Your task to perform on an android device: toggle wifi Image 0: 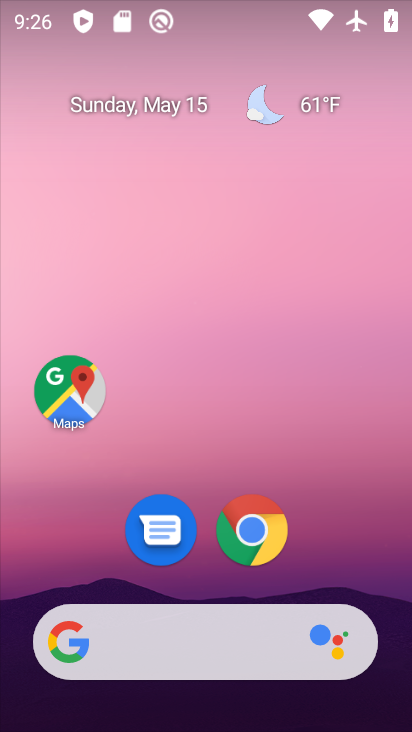
Step 0: drag from (219, 694) to (224, 31)
Your task to perform on an android device: toggle wifi Image 1: 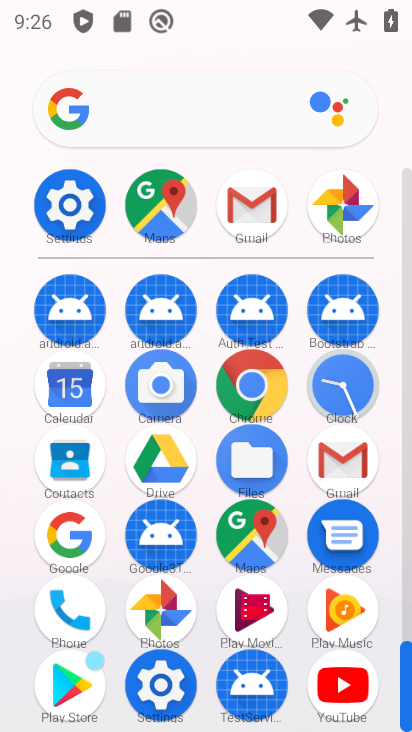
Step 1: click (79, 196)
Your task to perform on an android device: toggle wifi Image 2: 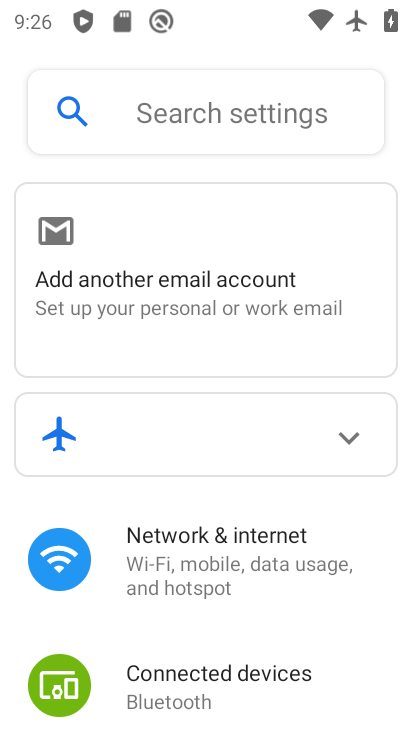
Step 2: click (172, 581)
Your task to perform on an android device: toggle wifi Image 3: 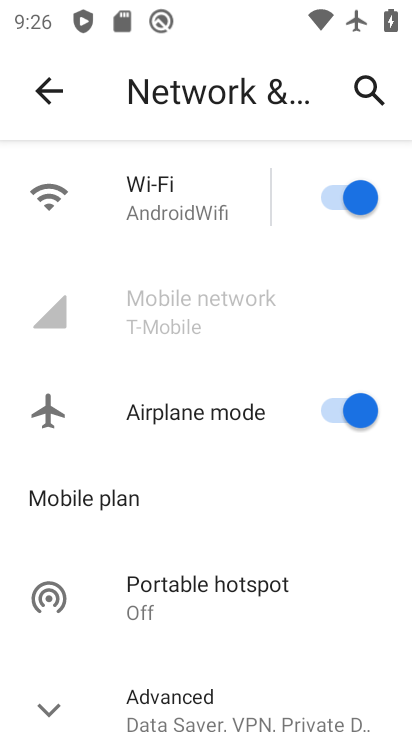
Step 3: click (333, 209)
Your task to perform on an android device: toggle wifi Image 4: 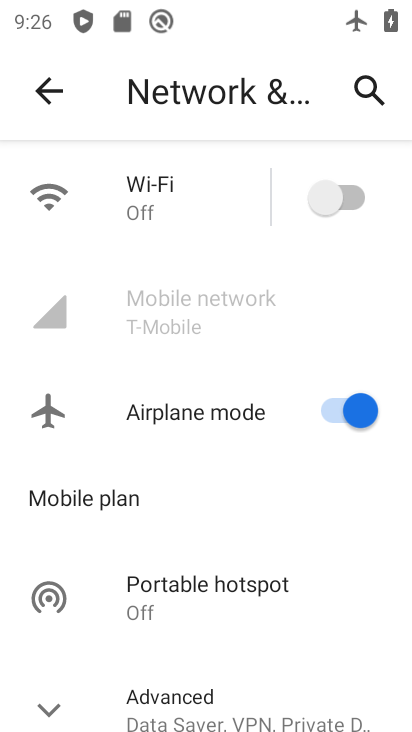
Step 4: task complete